Your task to perform on an android device: Open Google Maps Image 0: 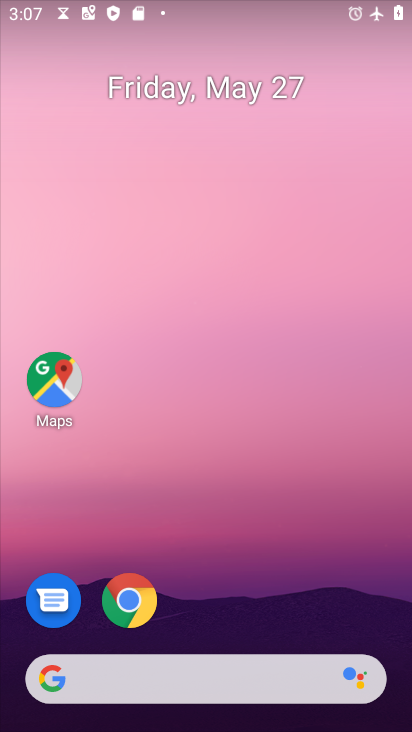
Step 0: drag from (238, 311) to (232, 19)
Your task to perform on an android device: Open Google Maps Image 1: 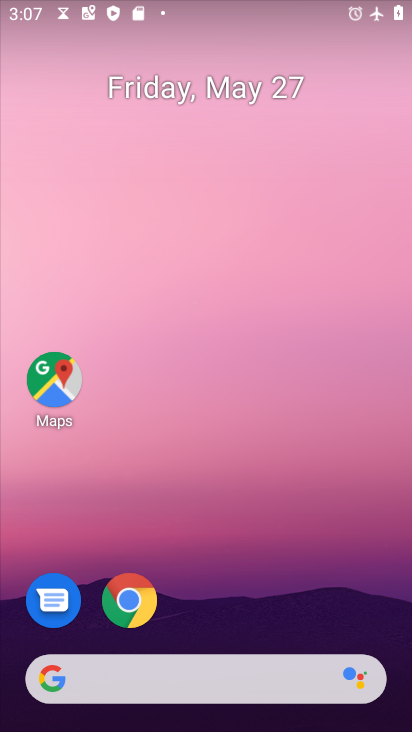
Step 1: drag from (254, 364) to (248, 25)
Your task to perform on an android device: Open Google Maps Image 2: 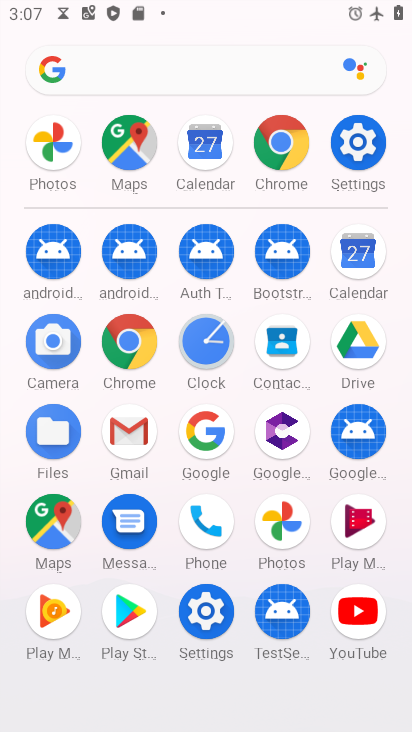
Step 2: drag from (5, 514) to (7, 260)
Your task to perform on an android device: Open Google Maps Image 3: 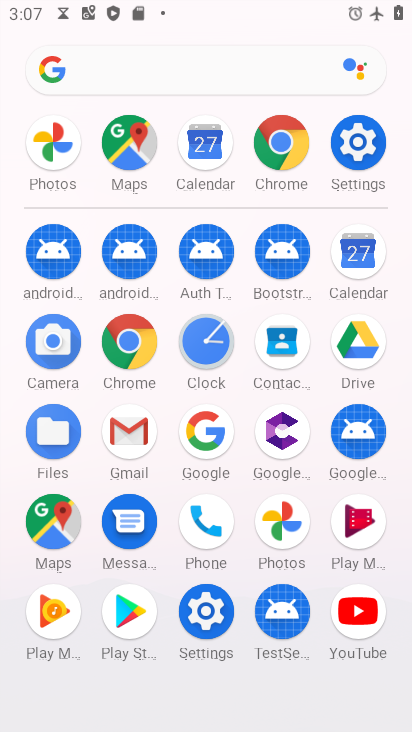
Step 3: click (48, 520)
Your task to perform on an android device: Open Google Maps Image 4: 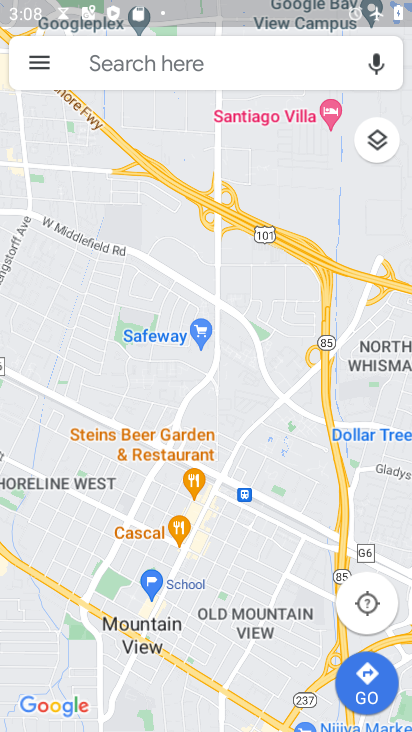
Step 4: task complete